Your task to perform on an android device: Open ESPN.com Image 0: 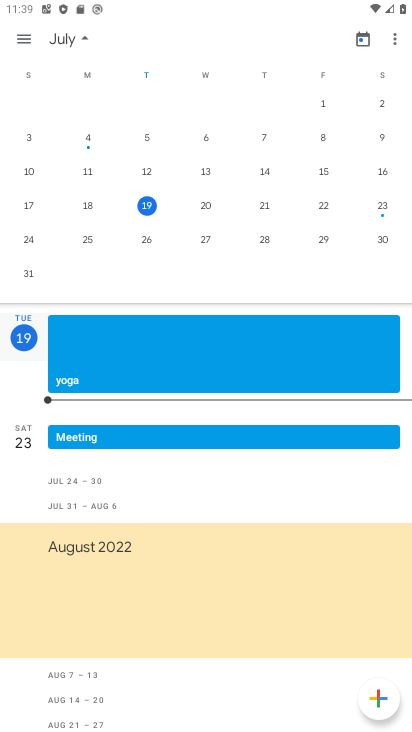
Step 0: press home button
Your task to perform on an android device: Open ESPN.com Image 1: 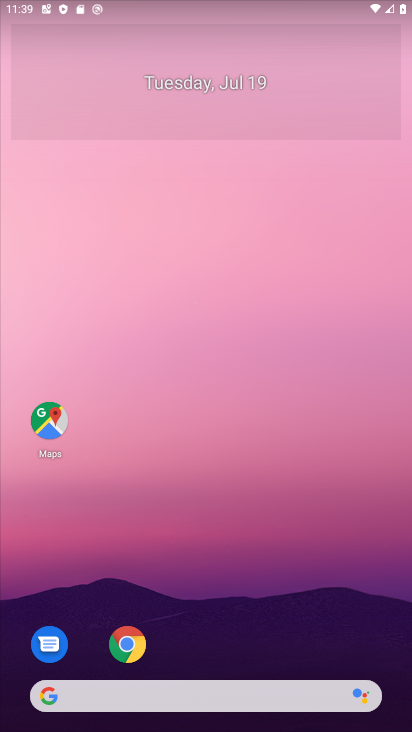
Step 1: click (189, 694)
Your task to perform on an android device: Open ESPN.com Image 2: 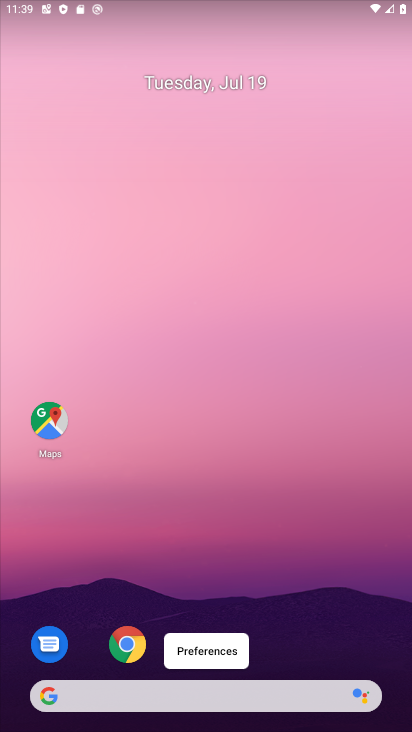
Step 2: click (131, 704)
Your task to perform on an android device: Open ESPN.com Image 3: 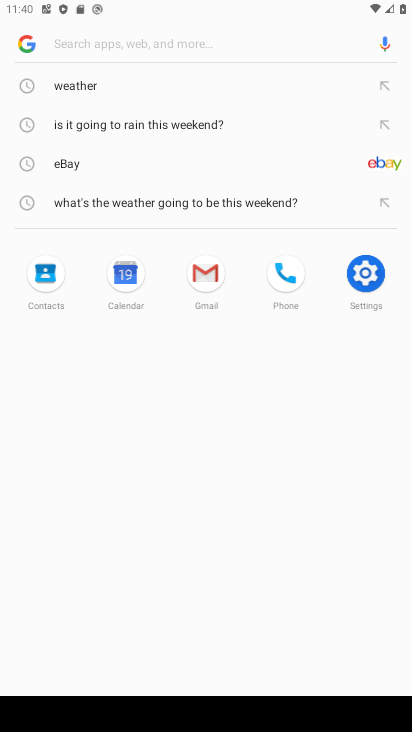
Step 3: type "ESPN.com"
Your task to perform on an android device: Open ESPN.com Image 4: 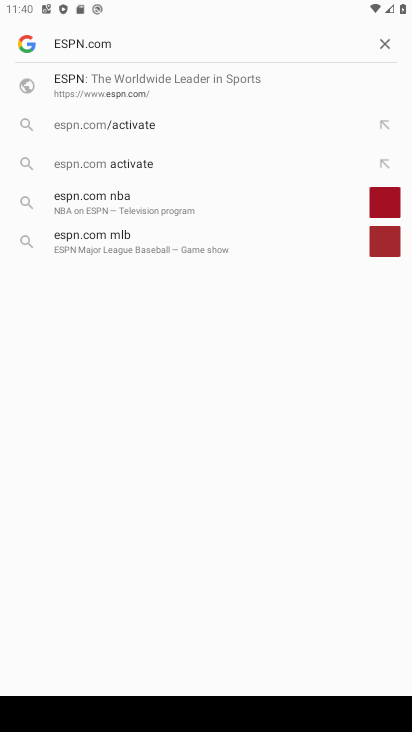
Step 4: type ""
Your task to perform on an android device: Open ESPN.com Image 5: 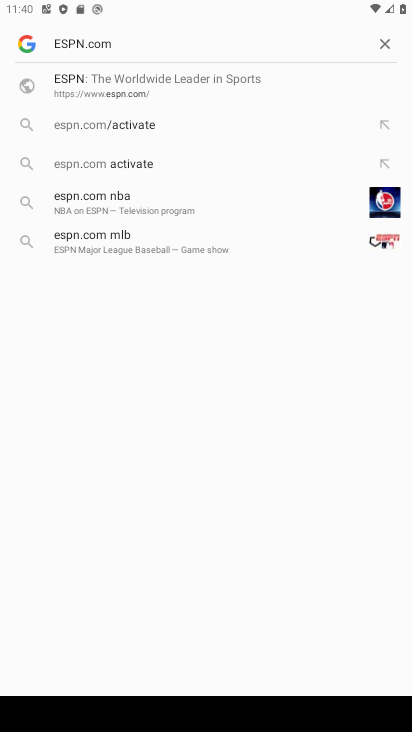
Step 5: click (63, 73)
Your task to perform on an android device: Open ESPN.com Image 6: 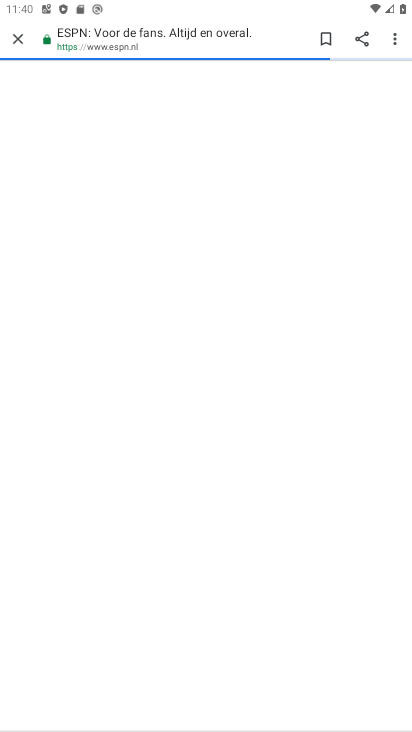
Step 6: task complete